Your task to perform on an android device: Go to network settings Image 0: 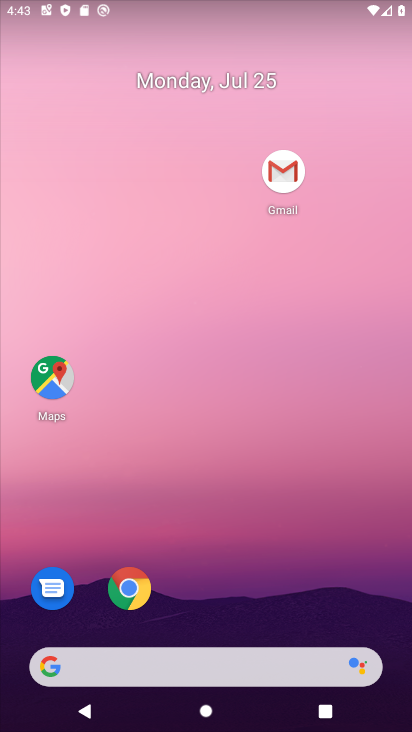
Step 0: drag from (279, 531) to (239, 0)
Your task to perform on an android device: Go to network settings Image 1: 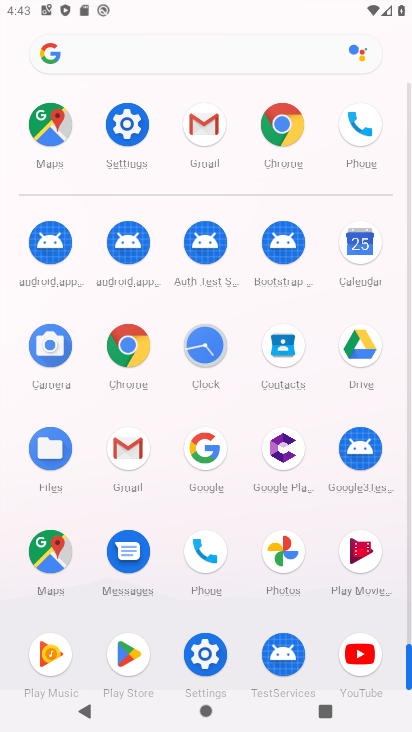
Step 1: click (129, 113)
Your task to perform on an android device: Go to network settings Image 2: 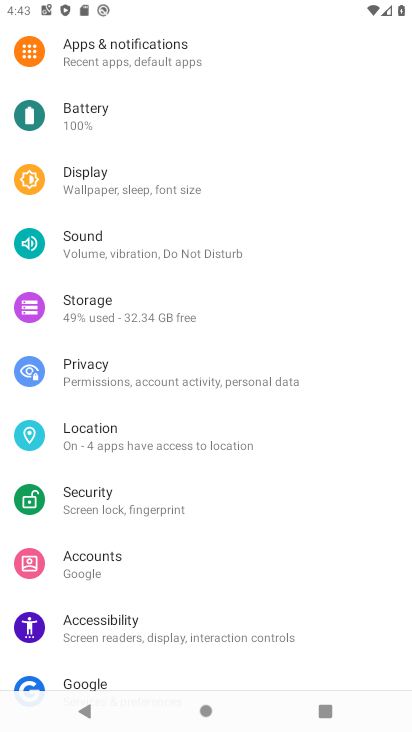
Step 2: drag from (244, 85) to (200, 572)
Your task to perform on an android device: Go to network settings Image 3: 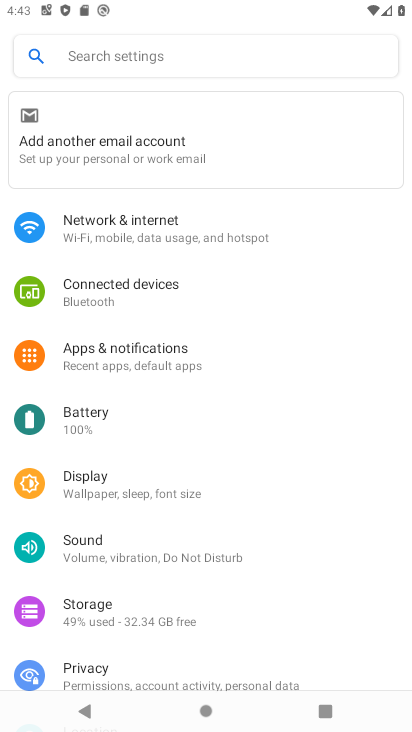
Step 3: click (184, 233)
Your task to perform on an android device: Go to network settings Image 4: 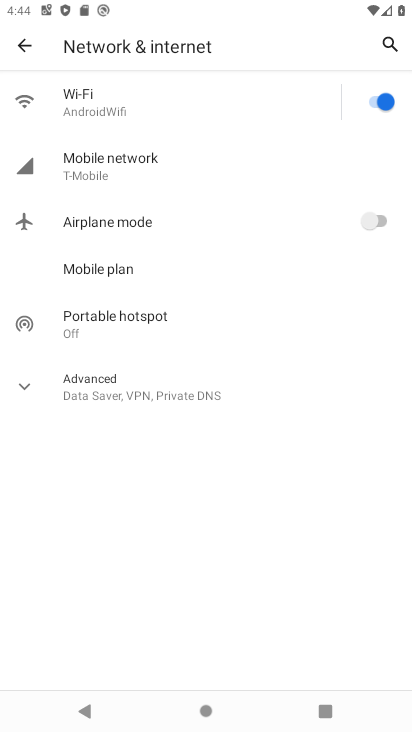
Step 4: click (243, 90)
Your task to perform on an android device: Go to network settings Image 5: 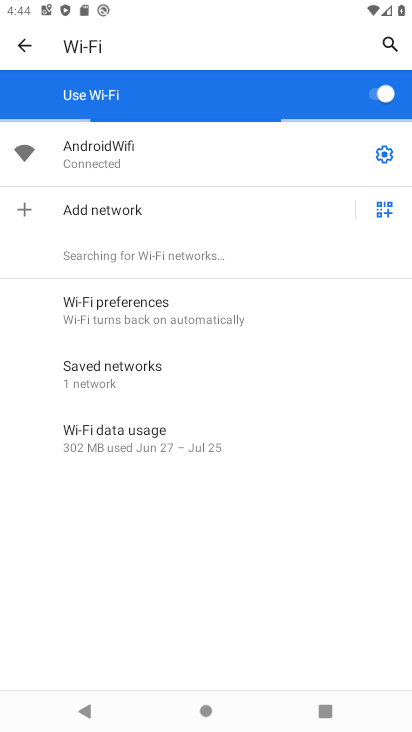
Step 5: click (377, 156)
Your task to perform on an android device: Go to network settings Image 6: 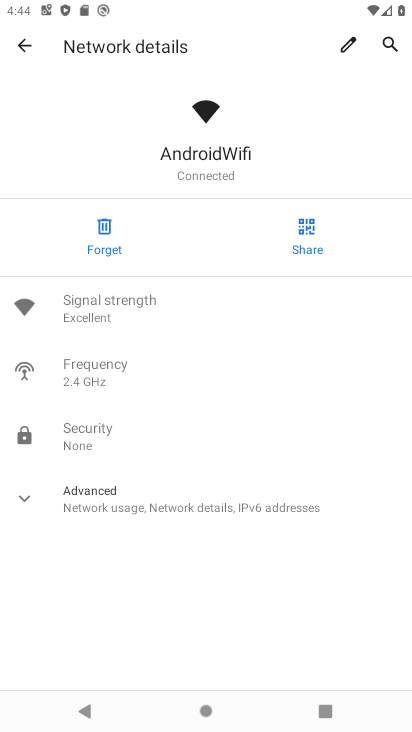
Step 6: task complete